Your task to perform on an android device: open app "Roku - Official Remote Control" (install if not already installed) and go to login screen Image 0: 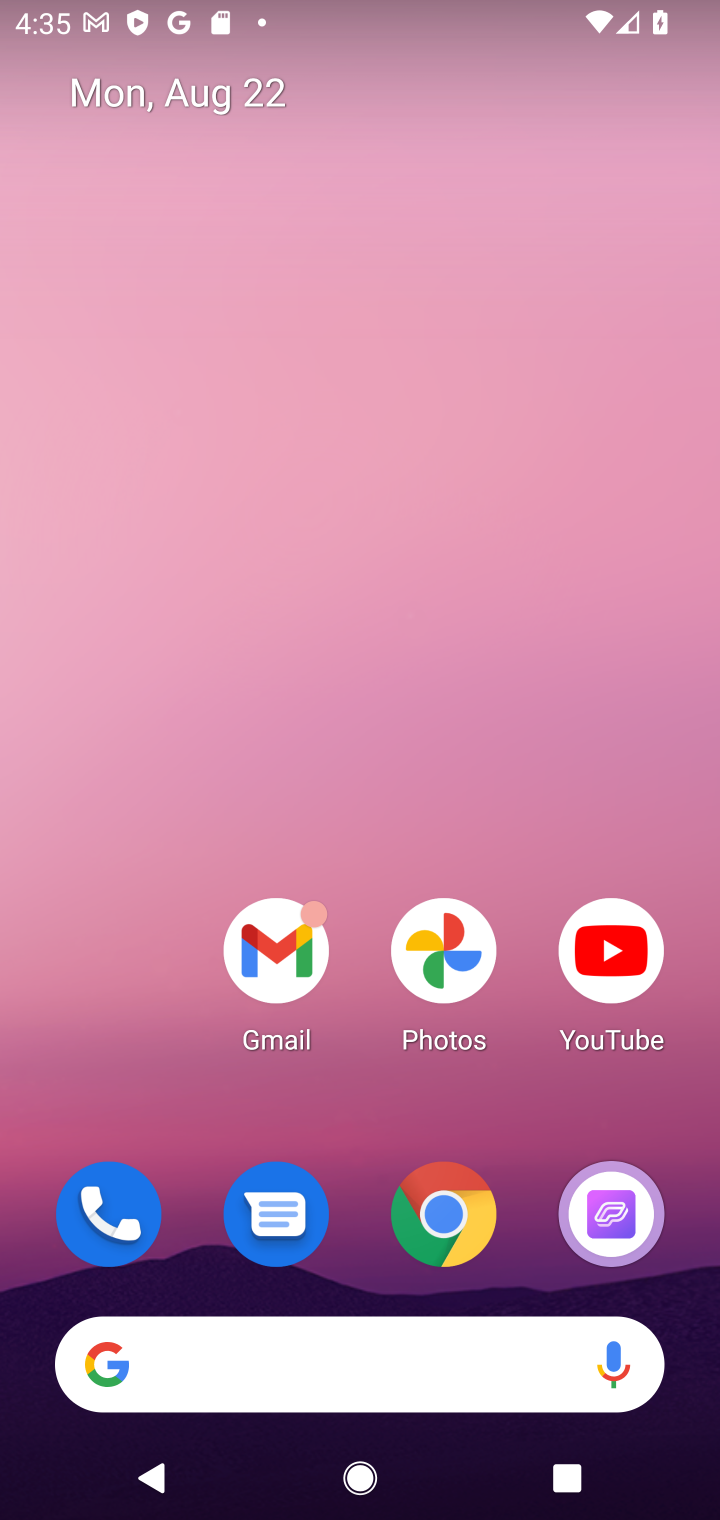
Step 0: drag from (536, 1267) to (475, 50)
Your task to perform on an android device: open app "Roku - Official Remote Control" (install if not already installed) and go to login screen Image 1: 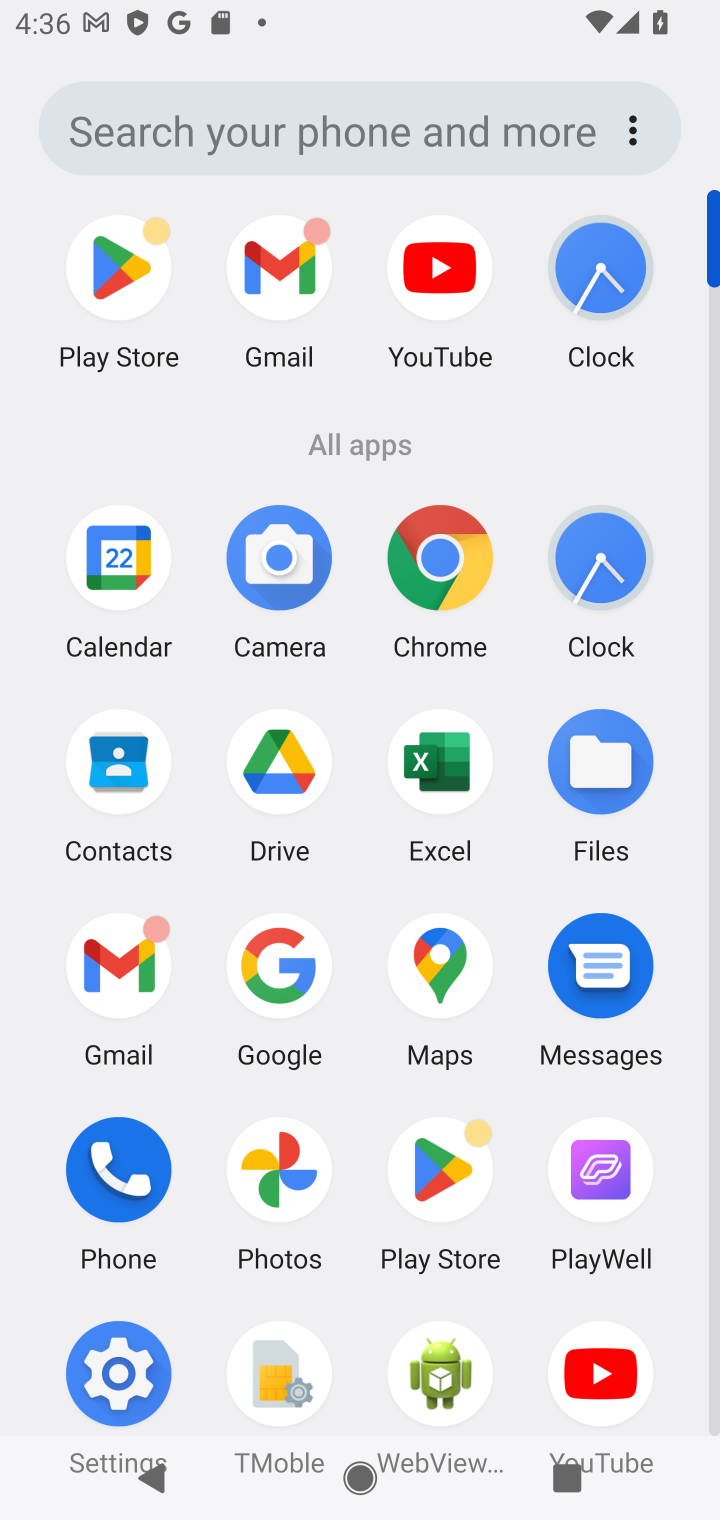
Step 1: click (441, 1173)
Your task to perform on an android device: open app "Roku - Official Remote Control" (install if not already installed) and go to login screen Image 2: 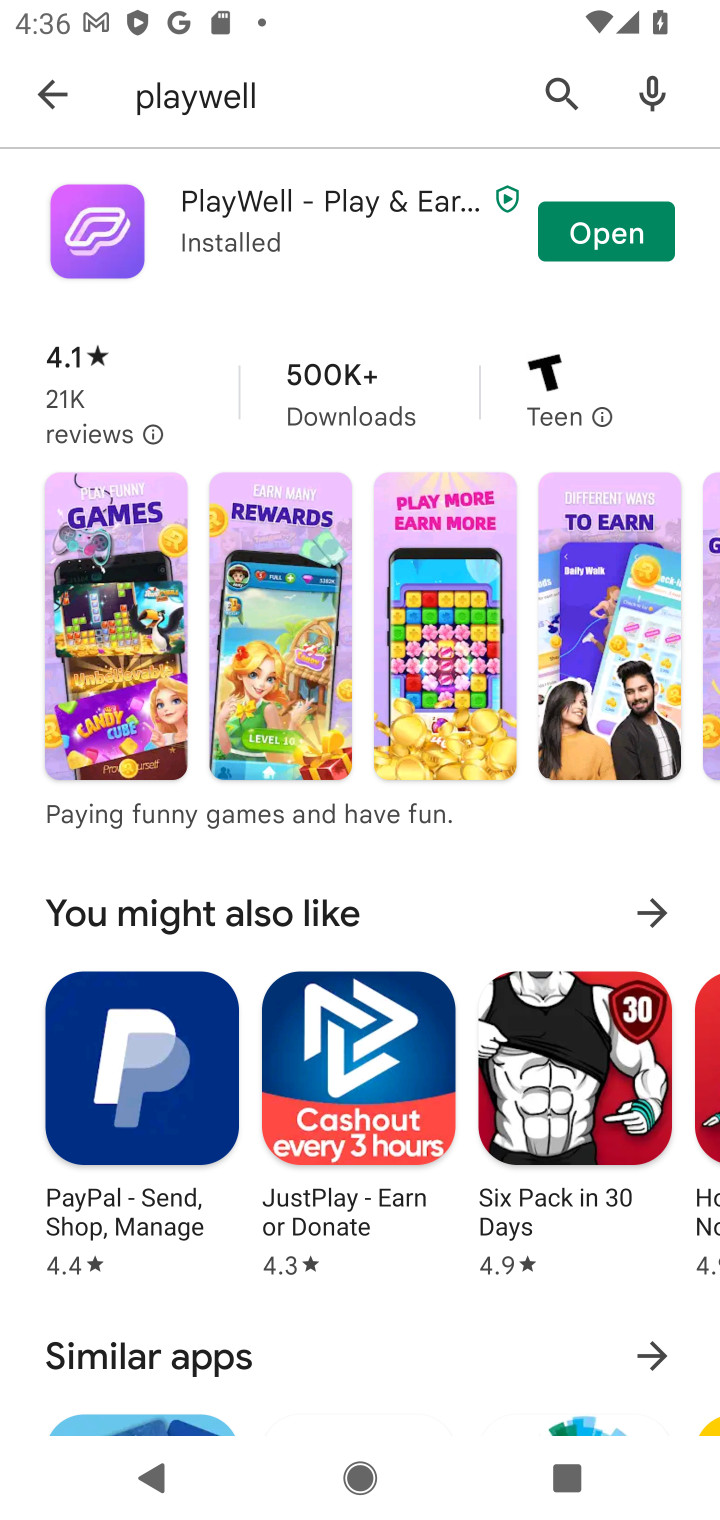
Step 2: click (560, 76)
Your task to perform on an android device: open app "Roku - Official Remote Control" (install if not already installed) and go to login screen Image 3: 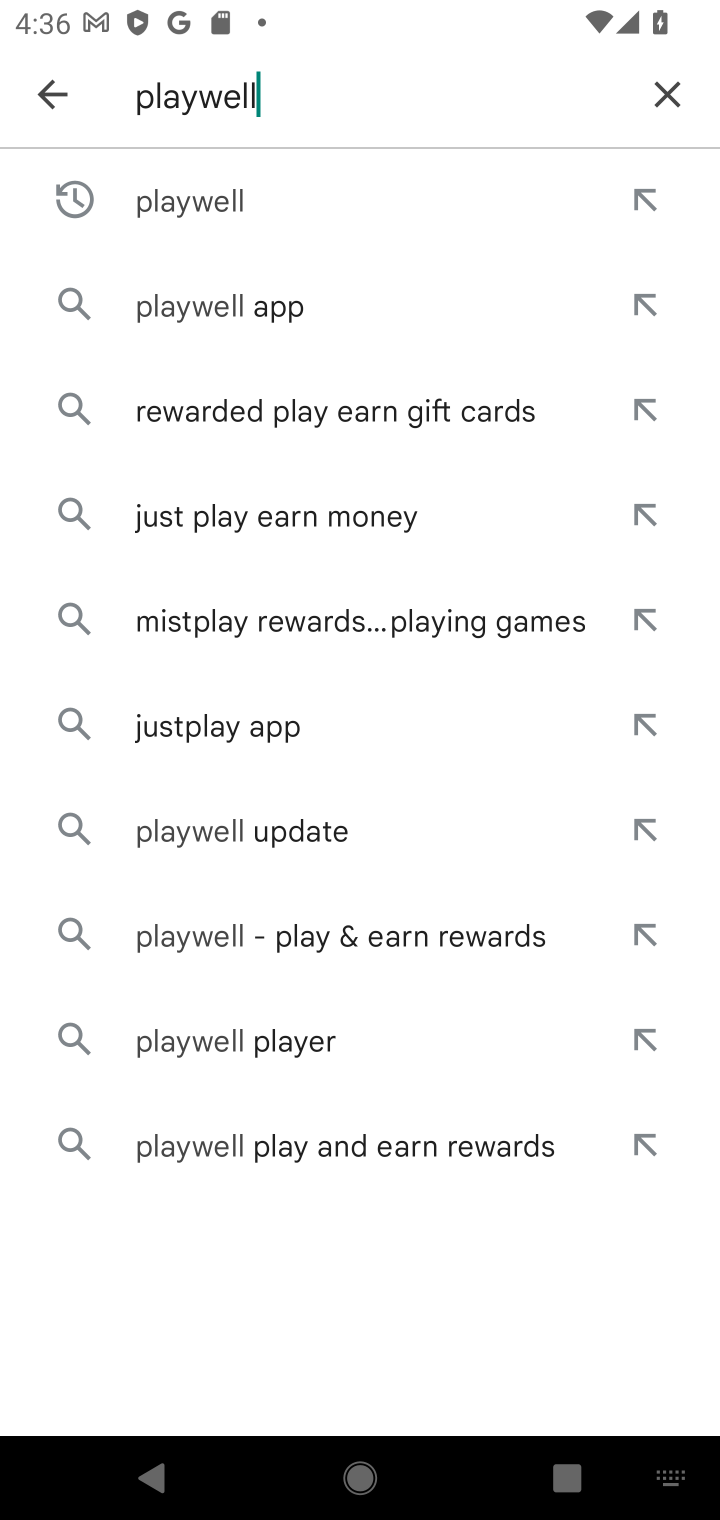
Step 3: click (662, 92)
Your task to perform on an android device: open app "Roku - Official Remote Control" (install if not already installed) and go to login screen Image 4: 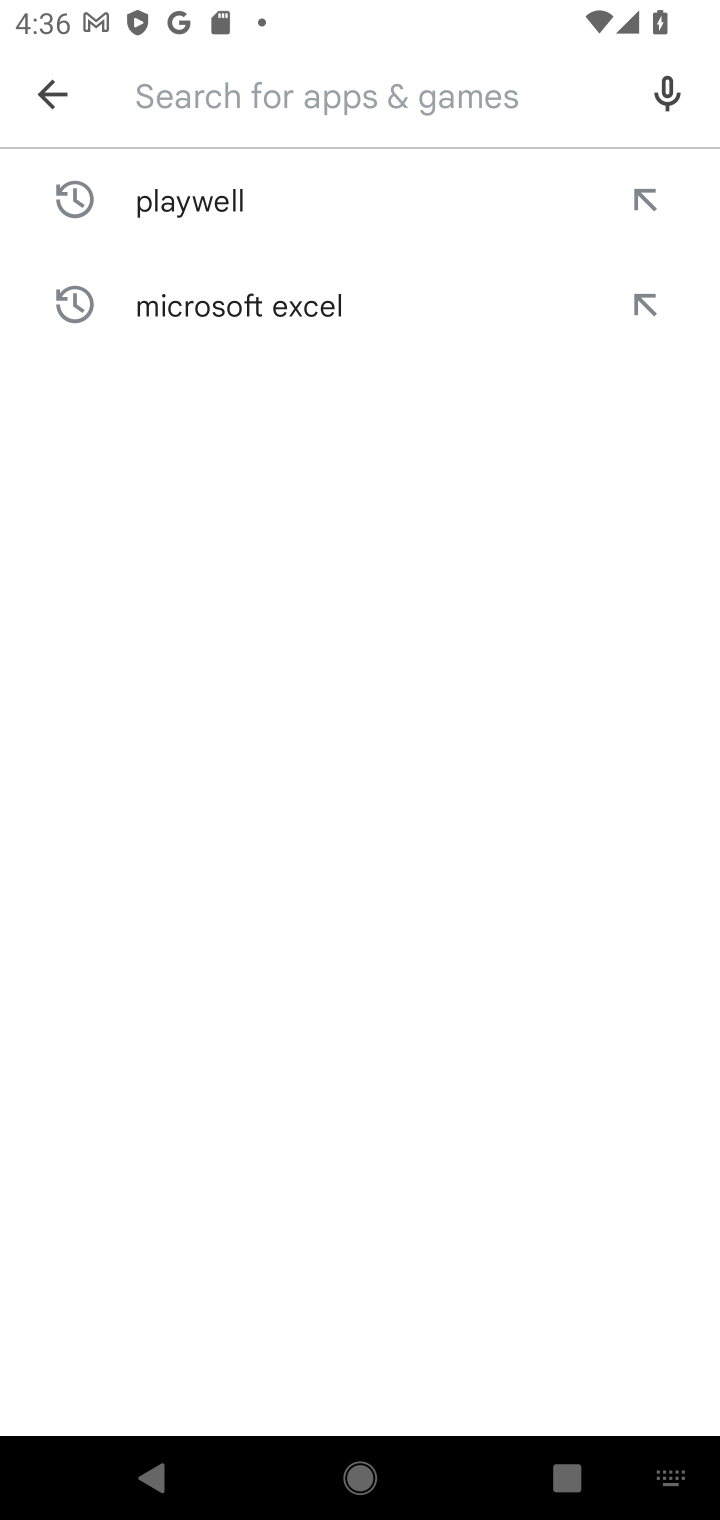
Step 4: type "roku"
Your task to perform on an android device: open app "Roku - Official Remote Control" (install if not already installed) and go to login screen Image 5: 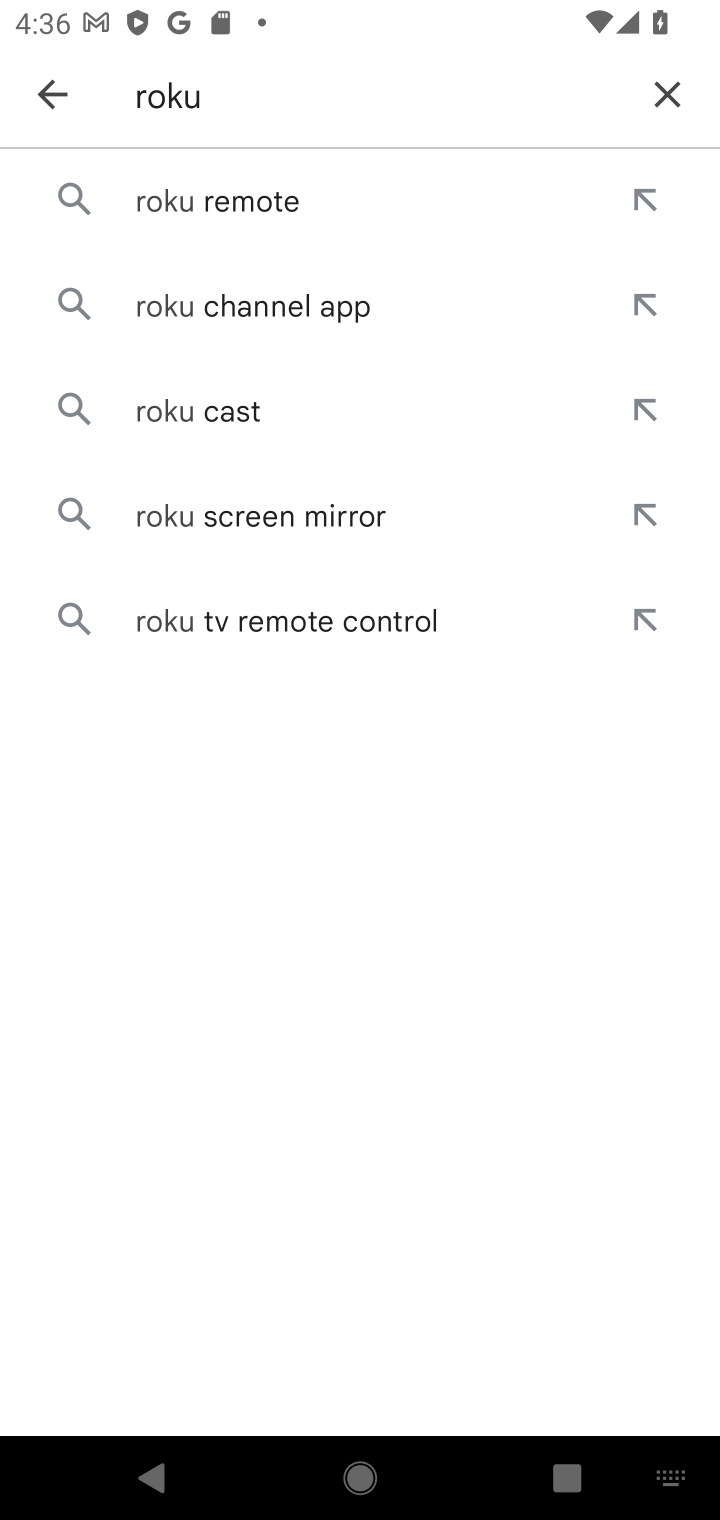
Step 5: click (218, 212)
Your task to perform on an android device: open app "Roku - Official Remote Control" (install if not already installed) and go to login screen Image 6: 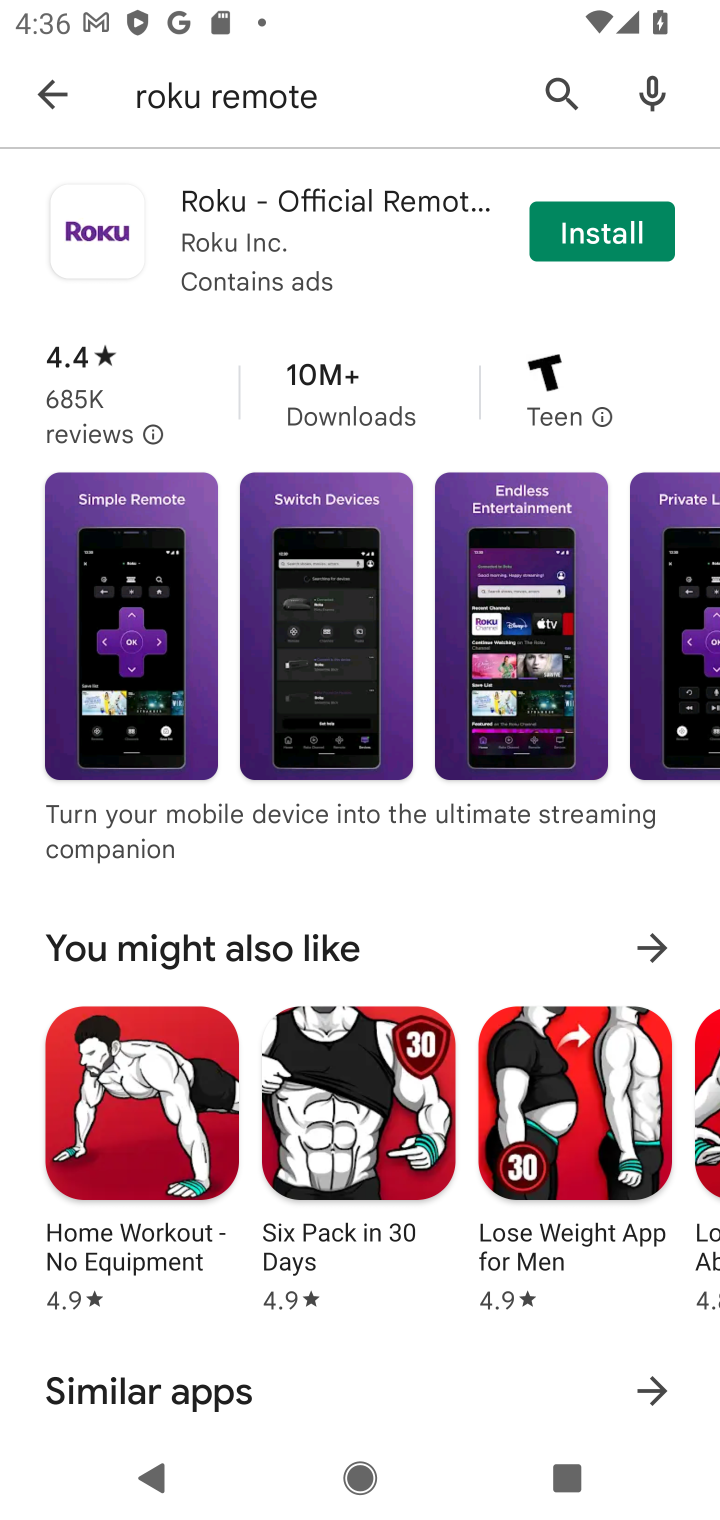
Step 6: click (613, 229)
Your task to perform on an android device: open app "Roku - Official Remote Control" (install if not already installed) and go to login screen Image 7: 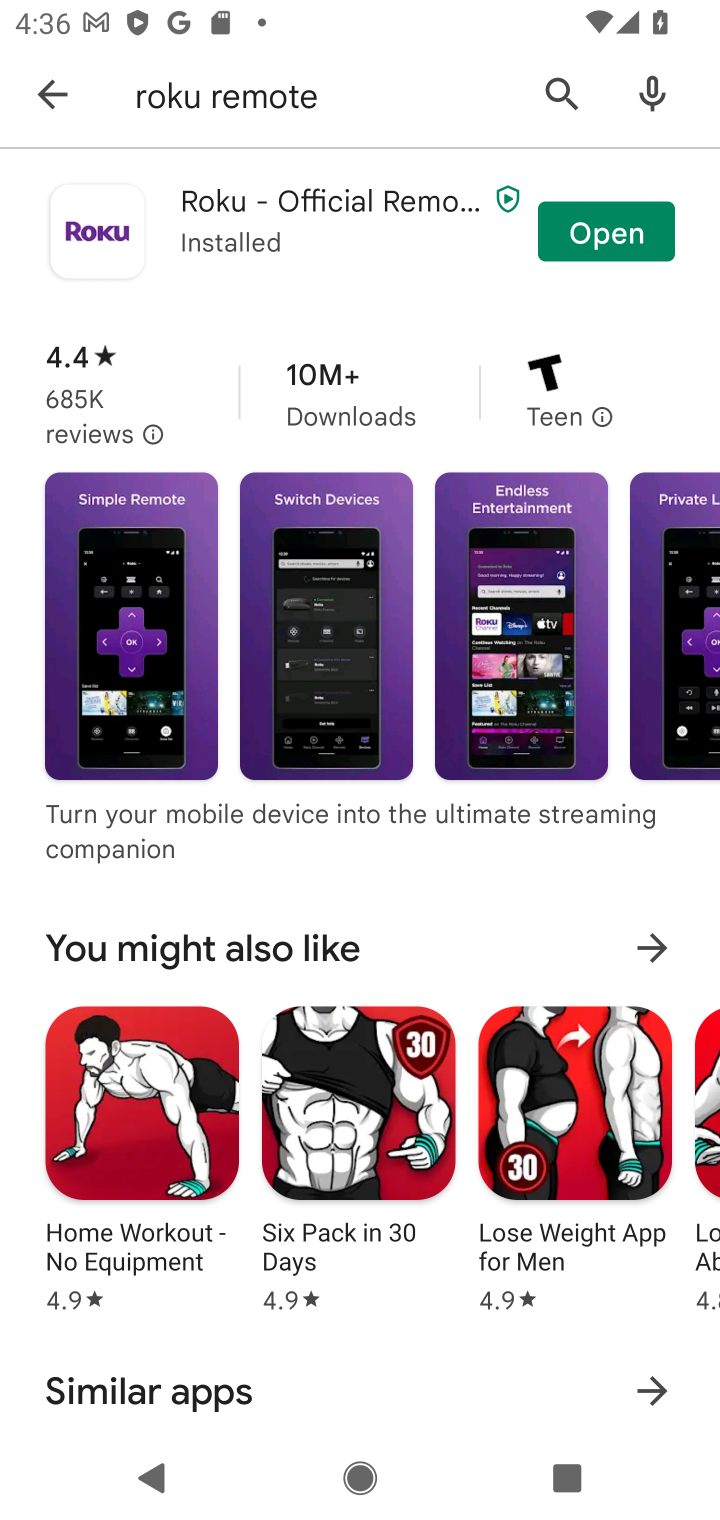
Step 7: click (599, 232)
Your task to perform on an android device: open app "Roku - Official Remote Control" (install if not already installed) and go to login screen Image 8: 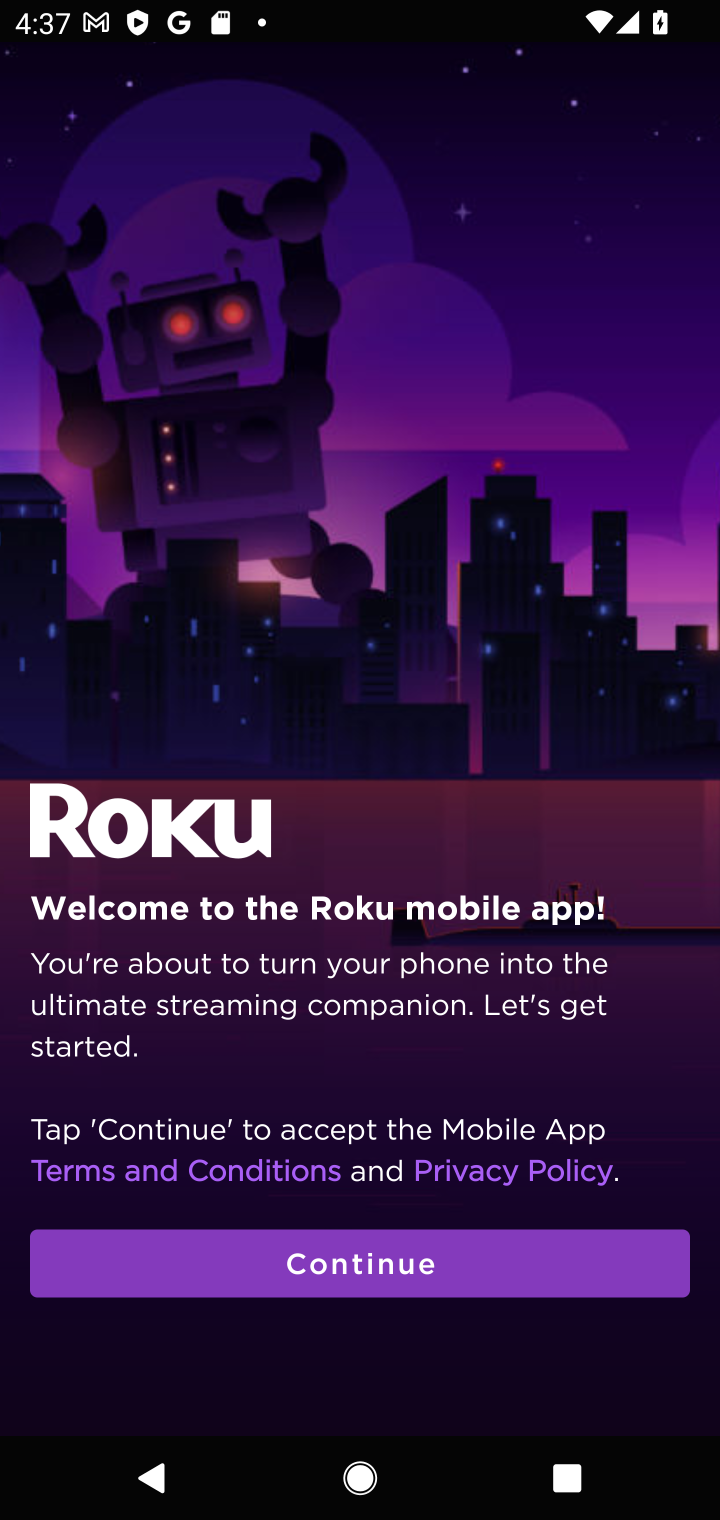
Step 8: task complete